Your task to perform on an android device: turn on wifi Image 0: 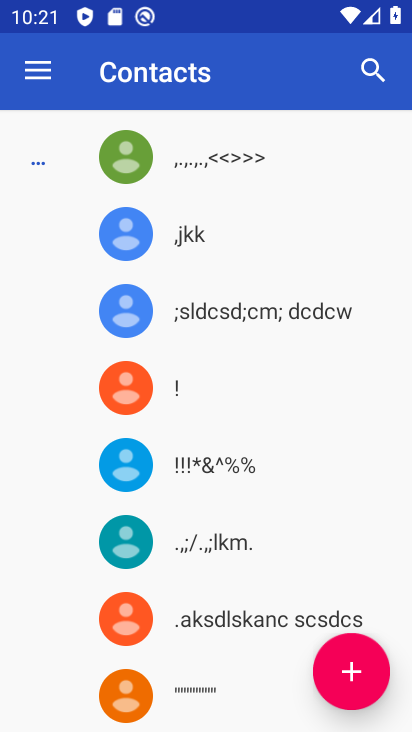
Step 0: press home button
Your task to perform on an android device: turn on wifi Image 1: 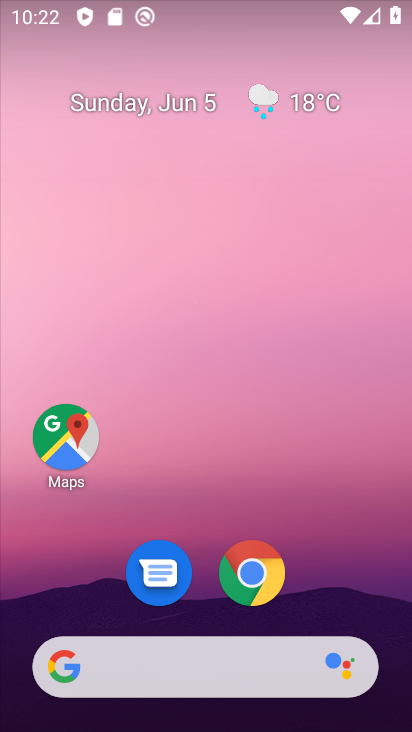
Step 1: drag from (67, 622) to (183, 78)
Your task to perform on an android device: turn on wifi Image 2: 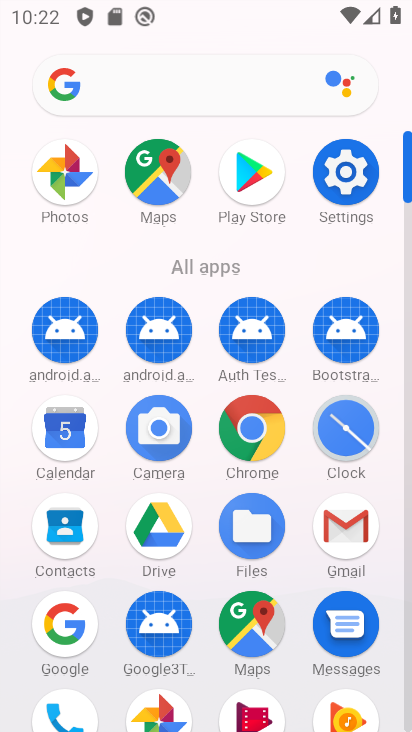
Step 2: drag from (169, 530) to (269, 110)
Your task to perform on an android device: turn on wifi Image 3: 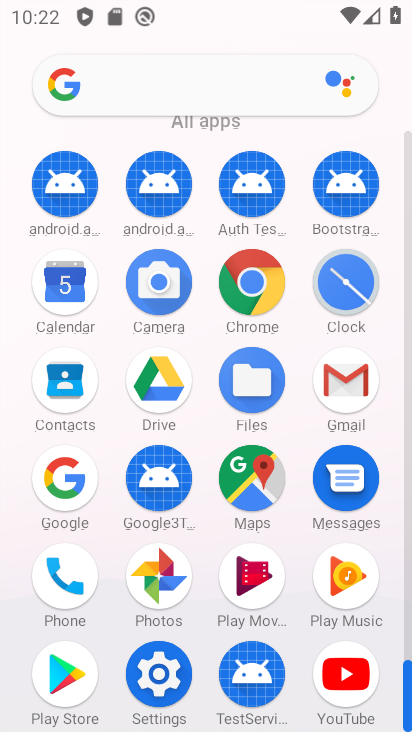
Step 3: click (150, 670)
Your task to perform on an android device: turn on wifi Image 4: 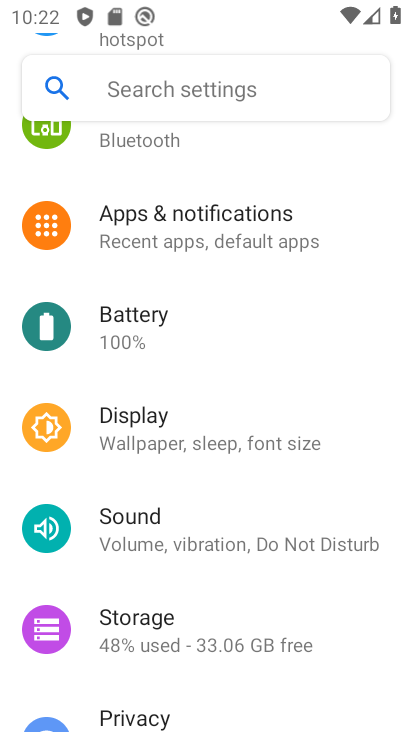
Step 4: drag from (240, 158) to (242, 585)
Your task to perform on an android device: turn on wifi Image 5: 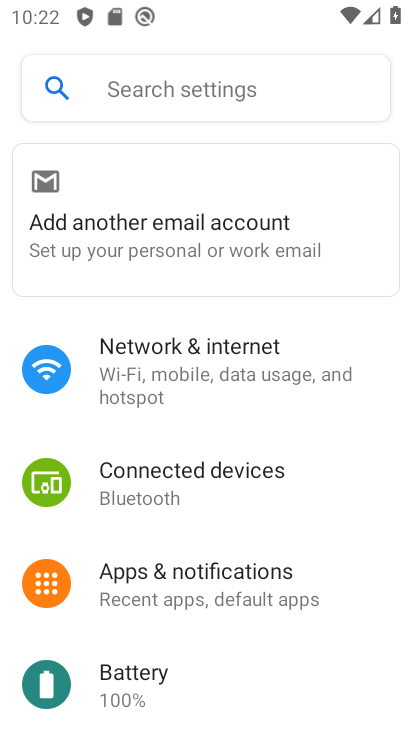
Step 5: click (234, 357)
Your task to perform on an android device: turn on wifi Image 6: 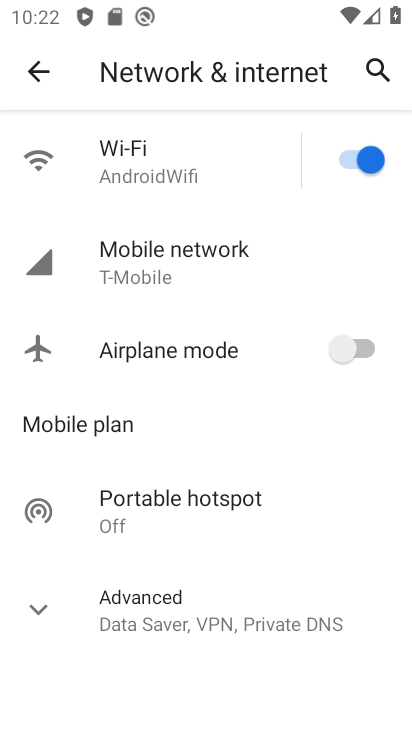
Step 6: task complete